Your task to perform on an android device: Clear the cart on bestbuy.com. Add logitech g pro to the cart on bestbuy.com, then select checkout. Image 0: 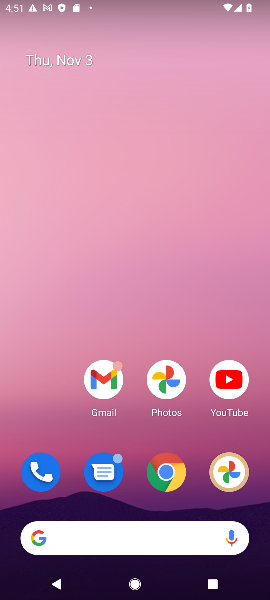
Step 0: click (165, 472)
Your task to perform on an android device: Clear the cart on bestbuy.com. Add logitech g pro to the cart on bestbuy.com, then select checkout. Image 1: 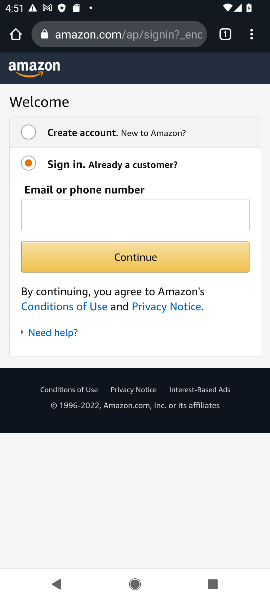
Step 1: click (100, 33)
Your task to perform on an android device: Clear the cart on bestbuy.com. Add logitech g pro to the cart on bestbuy.com, then select checkout. Image 2: 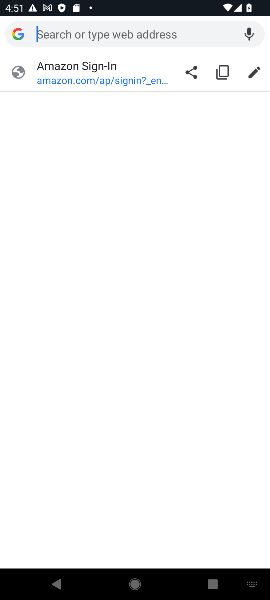
Step 2: type "bestbuy.com"
Your task to perform on an android device: Clear the cart on bestbuy.com. Add logitech g pro to the cart on bestbuy.com, then select checkout. Image 3: 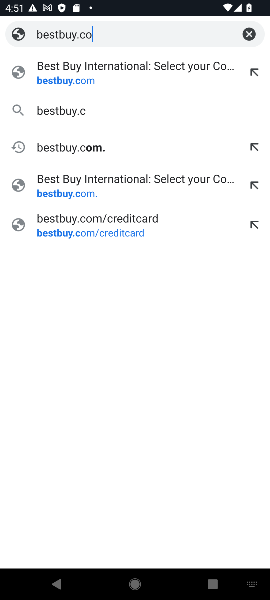
Step 3: type ""
Your task to perform on an android device: Clear the cart on bestbuy.com. Add logitech g pro to the cart on bestbuy.com, then select checkout. Image 4: 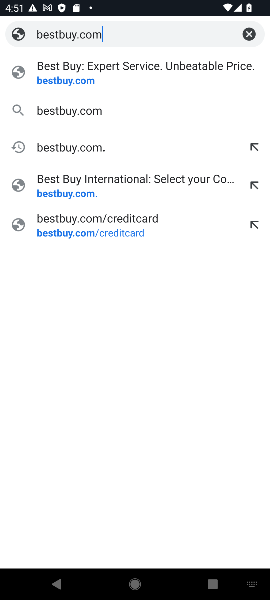
Step 4: click (102, 72)
Your task to perform on an android device: Clear the cart on bestbuy.com. Add logitech g pro to the cart on bestbuy.com, then select checkout. Image 5: 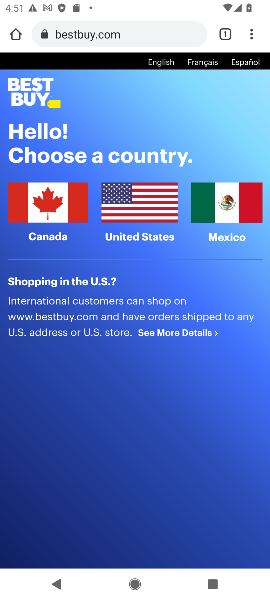
Step 5: click (128, 188)
Your task to perform on an android device: Clear the cart on bestbuy.com. Add logitech g pro to the cart on bestbuy.com, then select checkout. Image 6: 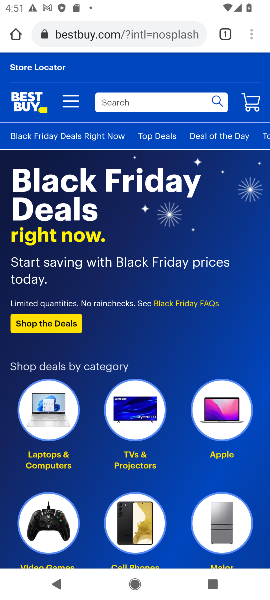
Step 6: click (258, 107)
Your task to perform on an android device: Clear the cart on bestbuy.com. Add logitech g pro to the cart on bestbuy.com, then select checkout. Image 7: 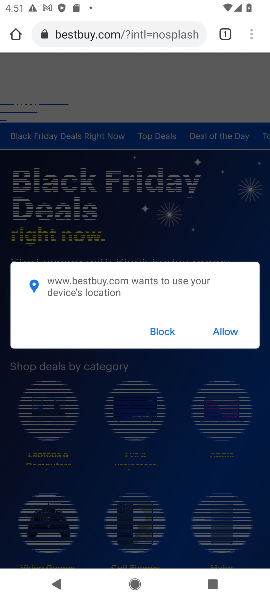
Step 7: click (172, 338)
Your task to perform on an android device: Clear the cart on bestbuy.com. Add logitech g pro to the cart on bestbuy.com, then select checkout. Image 8: 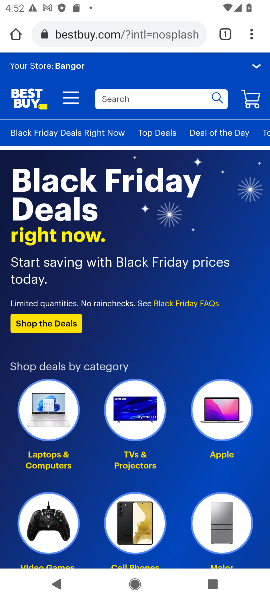
Step 8: click (245, 102)
Your task to perform on an android device: Clear the cart on bestbuy.com. Add logitech g pro to the cart on bestbuy.com, then select checkout. Image 9: 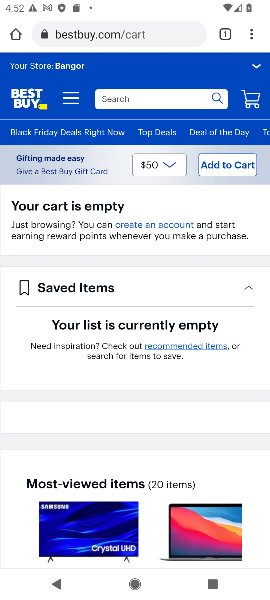
Step 9: click (126, 96)
Your task to perform on an android device: Clear the cart on bestbuy.com. Add logitech g pro to the cart on bestbuy.com, then select checkout. Image 10: 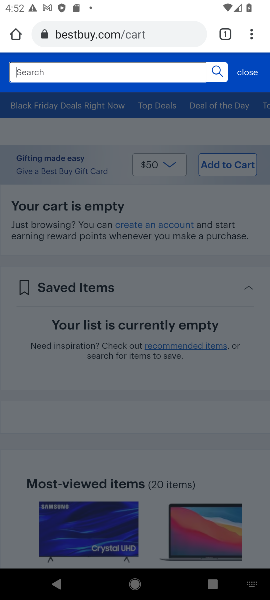
Step 10: type " logitech g pro"
Your task to perform on an android device: Clear the cart on bestbuy.com. Add logitech g pro to the cart on bestbuy.com, then select checkout. Image 11: 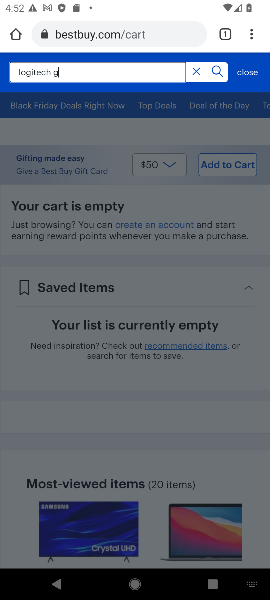
Step 11: type ""
Your task to perform on an android device: Clear the cart on bestbuy.com. Add logitech g pro to the cart on bestbuy.com, then select checkout. Image 12: 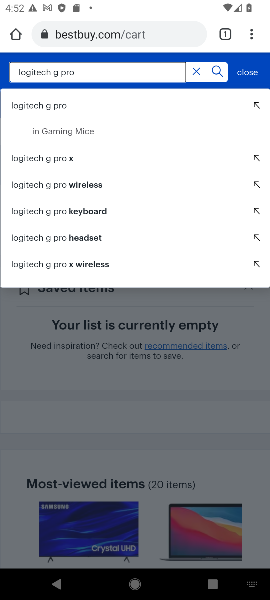
Step 12: click (62, 106)
Your task to perform on an android device: Clear the cart on bestbuy.com. Add logitech g pro to the cart on bestbuy.com, then select checkout. Image 13: 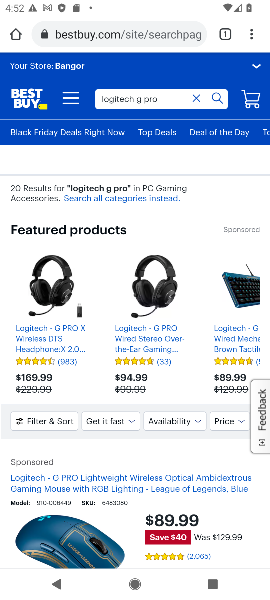
Step 13: click (24, 327)
Your task to perform on an android device: Clear the cart on bestbuy.com. Add logitech g pro to the cart on bestbuy.com, then select checkout. Image 14: 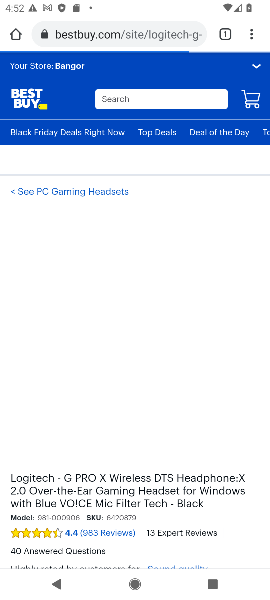
Step 14: drag from (113, 512) to (136, 284)
Your task to perform on an android device: Clear the cart on bestbuy.com. Add logitech g pro to the cart on bestbuy.com, then select checkout. Image 15: 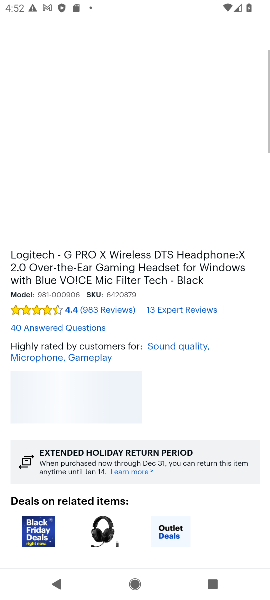
Step 15: drag from (151, 452) to (181, 295)
Your task to perform on an android device: Clear the cart on bestbuy.com. Add logitech g pro to the cart on bestbuy.com, then select checkout. Image 16: 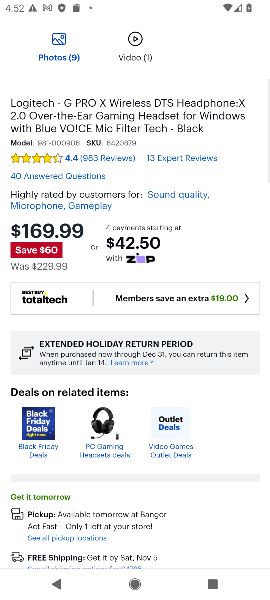
Step 16: drag from (178, 393) to (194, 597)
Your task to perform on an android device: Clear the cart on bestbuy.com. Add logitech g pro to the cart on bestbuy.com, then select checkout. Image 17: 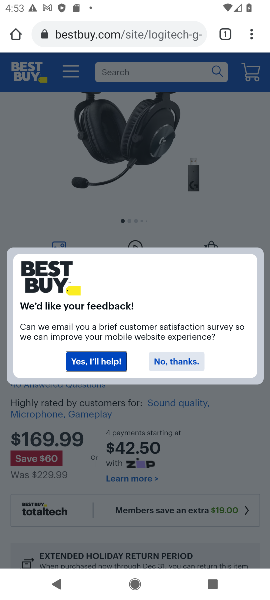
Step 17: click (170, 354)
Your task to perform on an android device: Clear the cart on bestbuy.com. Add logitech g pro to the cart on bestbuy.com, then select checkout. Image 18: 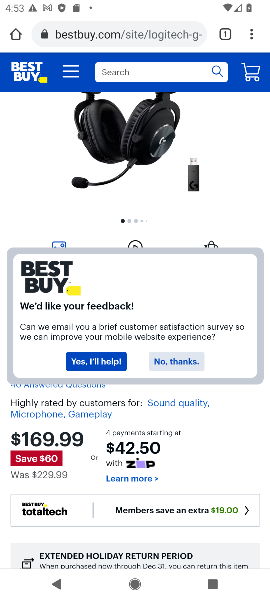
Step 18: drag from (205, 495) to (237, 367)
Your task to perform on an android device: Clear the cart on bestbuy.com. Add logitech g pro to the cart on bestbuy.com, then select checkout. Image 19: 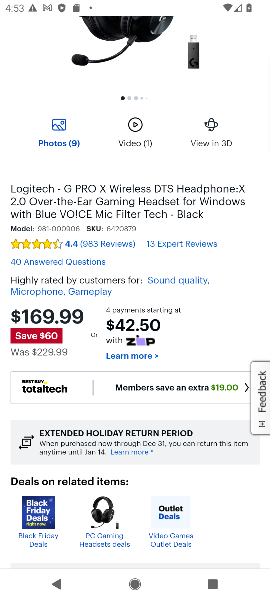
Step 19: click (167, 326)
Your task to perform on an android device: Clear the cart on bestbuy.com. Add logitech g pro to the cart on bestbuy.com, then select checkout. Image 20: 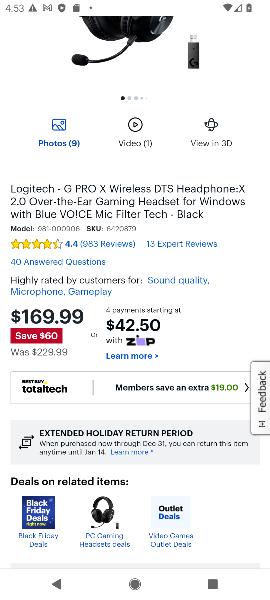
Step 20: drag from (198, 440) to (210, 178)
Your task to perform on an android device: Clear the cart on bestbuy.com. Add logitech g pro to the cart on bestbuy.com, then select checkout. Image 21: 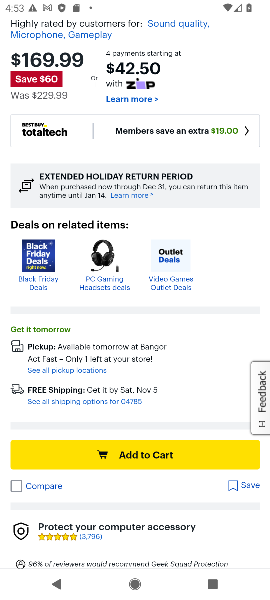
Step 21: click (144, 456)
Your task to perform on an android device: Clear the cart on bestbuy.com. Add logitech g pro to the cart on bestbuy.com, then select checkout. Image 22: 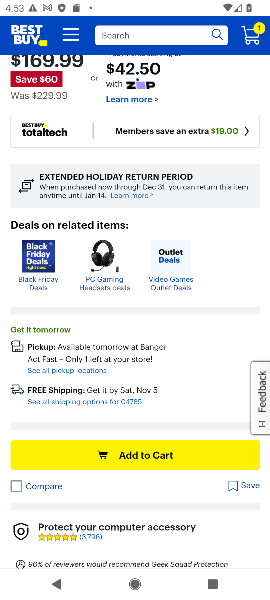
Step 22: click (260, 40)
Your task to perform on an android device: Clear the cart on bestbuy.com. Add logitech g pro to the cart on bestbuy.com, then select checkout. Image 23: 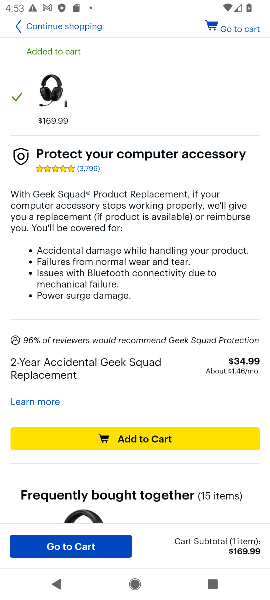
Step 23: click (85, 550)
Your task to perform on an android device: Clear the cart on bestbuy.com. Add logitech g pro to the cart on bestbuy.com, then select checkout. Image 24: 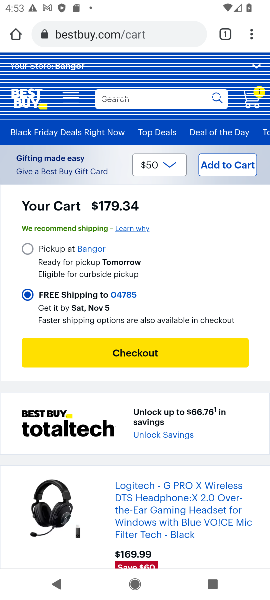
Step 24: click (128, 354)
Your task to perform on an android device: Clear the cart on bestbuy.com. Add logitech g pro to the cart on bestbuy.com, then select checkout. Image 25: 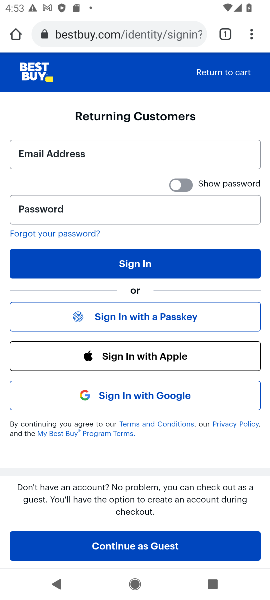
Step 25: click (174, 541)
Your task to perform on an android device: Clear the cart on bestbuy.com. Add logitech g pro to the cart on bestbuy.com, then select checkout. Image 26: 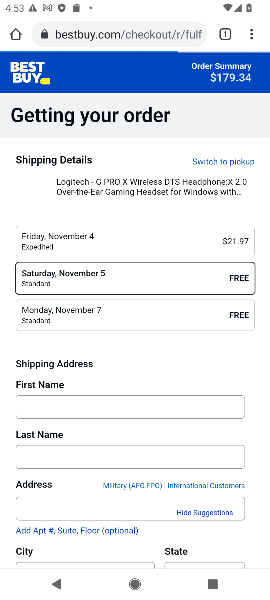
Step 26: task complete